Your task to perform on an android device: Go to notification settings Image 0: 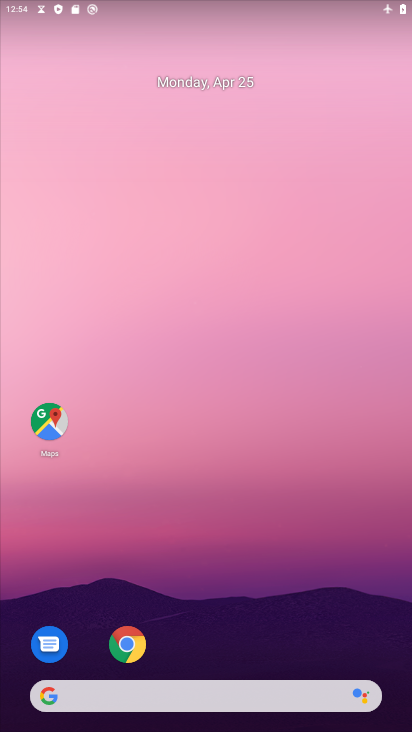
Step 0: drag from (374, 665) to (379, 36)
Your task to perform on an android device: Go to notification settings Image 1: 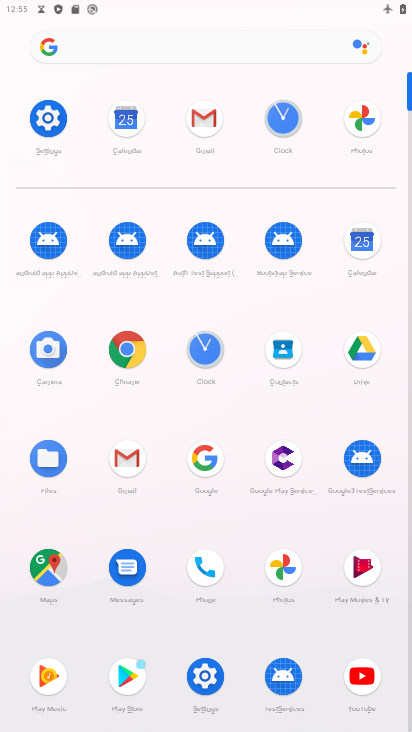
Step 1: click (52, 125)
Your task to perform on an android device: Go to notification settings Image 2: 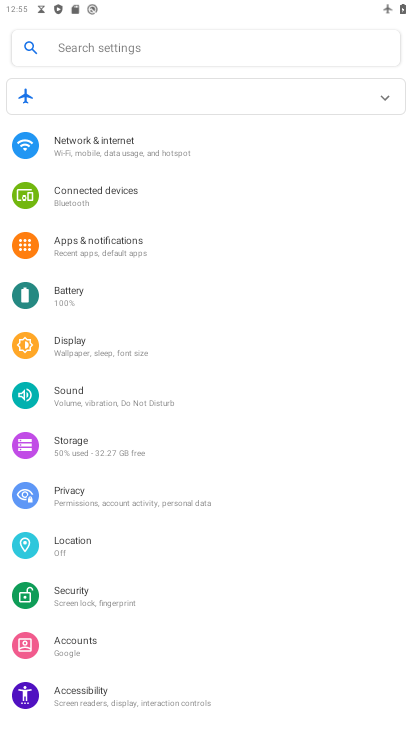
Step 2: click (105, 245)
Your task to perform on an android device: Go to notification settings Image 3: 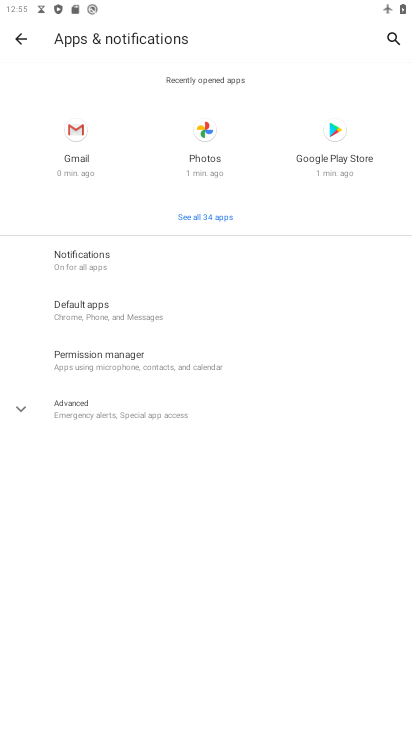
Step 3: task complete